Your task to perform on an android device: Open notification settings Image 0: 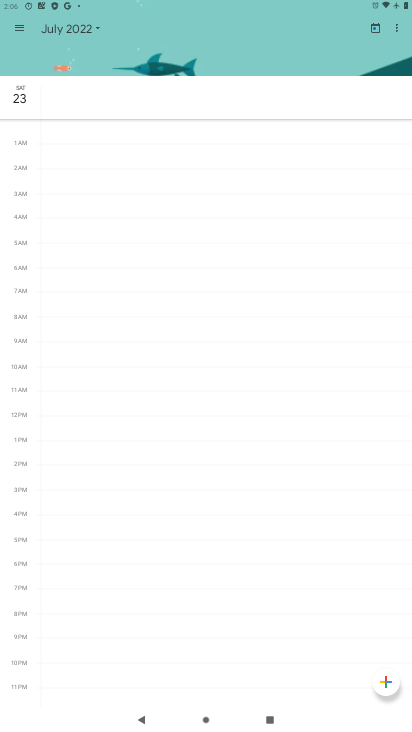
Step 0: press home button
Your task to perform on an android device: Open notification settings Image 1: 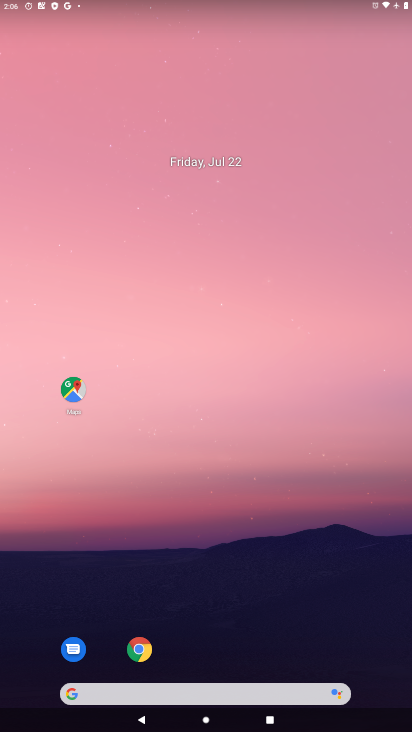
Step 1: drag from (289, 638) to (242, 118)
Your task to perform on an android device: Open notification settings Image 2: 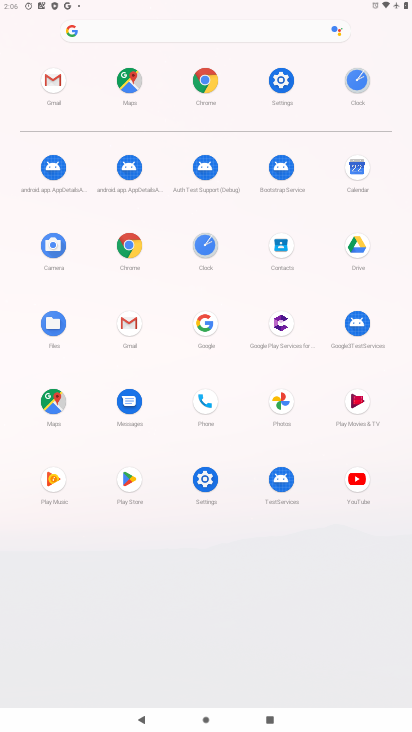
Step 2: click (282, 88)
Your task to perform on an android device: Open notification settings Image 3: 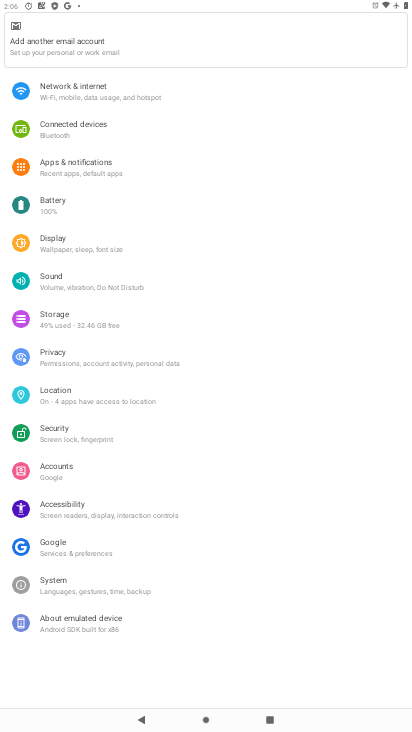
Step 3: click (91, 173)
Your task to perform on an android device: Open notification settings Image 4: 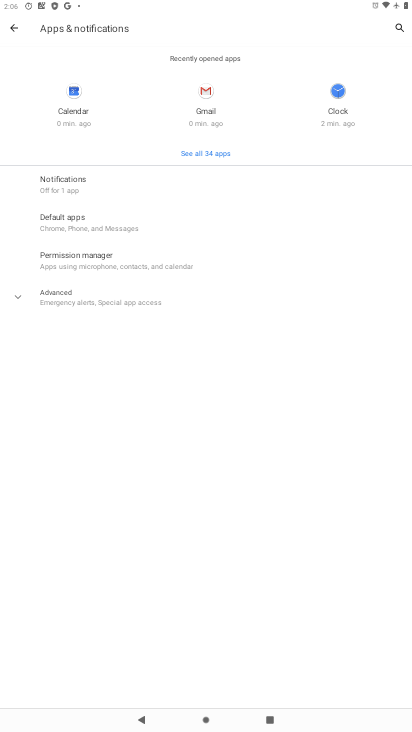
Step 4: click (79, 178)
Your task to perform on an android device: Open notification settings Image 5: 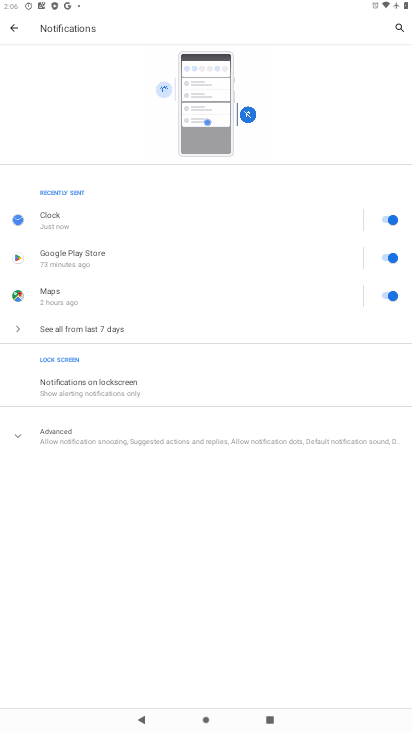
Step 5: task complete